Your task to perform on an android device: Open accessibility settings Image 0: 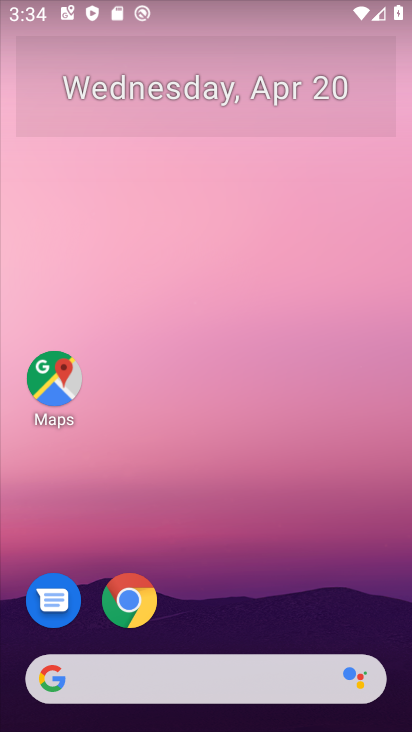
Step 0: drag from (238, 620) to (231, 152)
Your task to perform on an android device: Open accessibility settings Image 1: 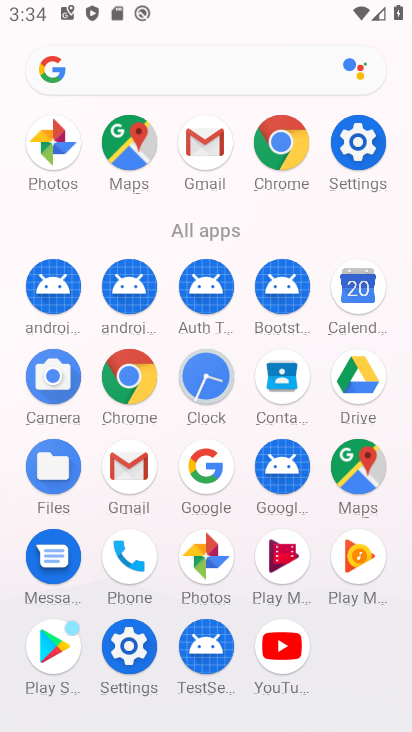
Step 1: click (361, 143)
Your task to perform on an android device: Open accessibility settings Image 2: 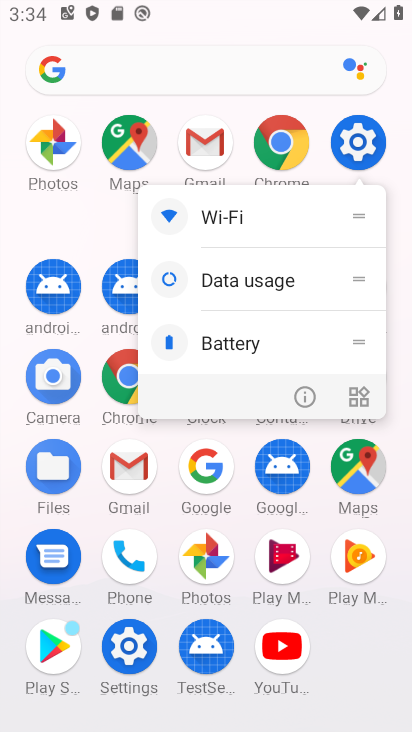
Step 2: click (355, 143)
Your task to perform on an android device: Open accessibility settings Image 3: 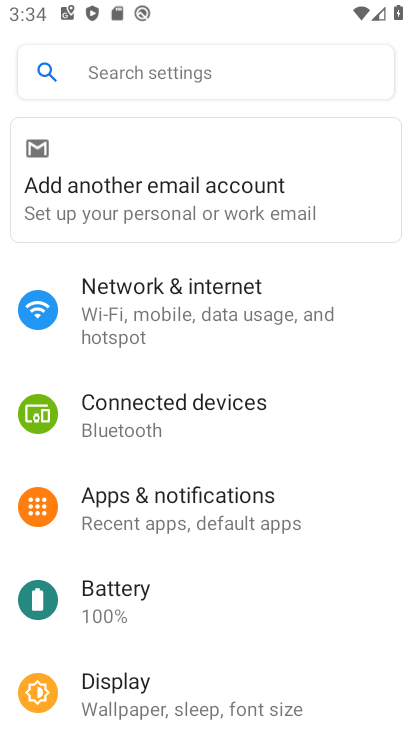
Step 3: drag from (236, 547) to (249, 81)
Your task to perform on an android device: Open accessibility settings Image 4: 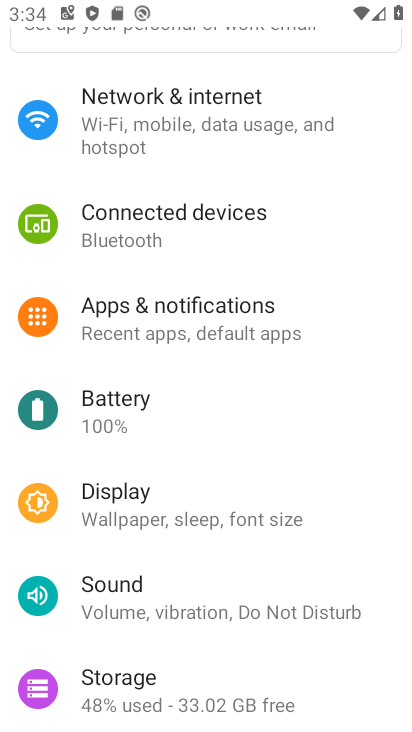
Step 4: drag from (224, 629) to (293, 125)
Your task to perform on an android device: Open accessibility settings Image 5: 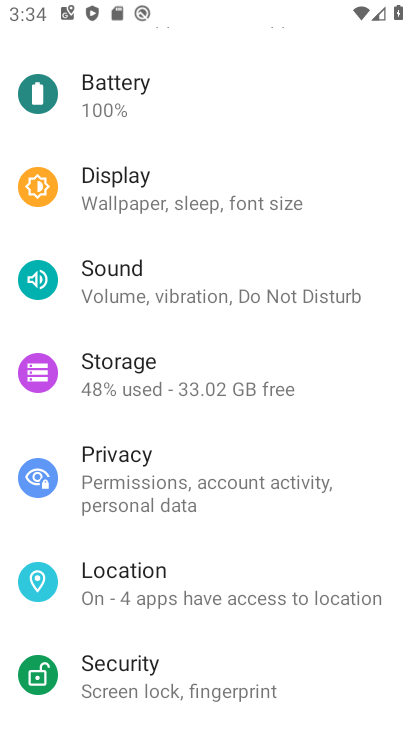
Step 5: drag from (261, 441) to (304, 124)
Your task to perform on an android device: Open accessibility settings Image 6: 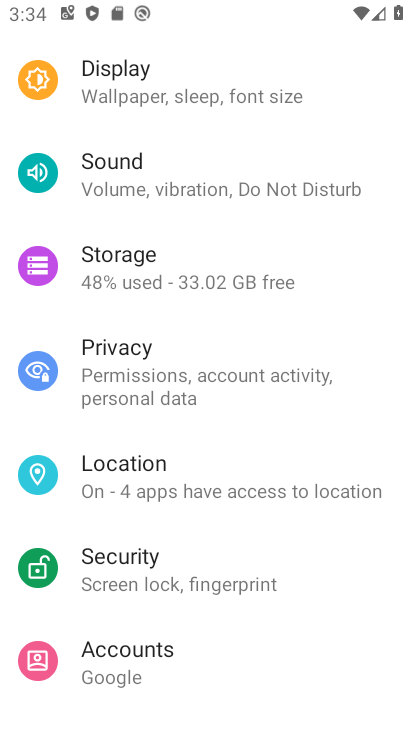
Step 6: drag from (167, 593) to (247, 150)
Your task to perform on an android device: Open accessibility settings Image 7: 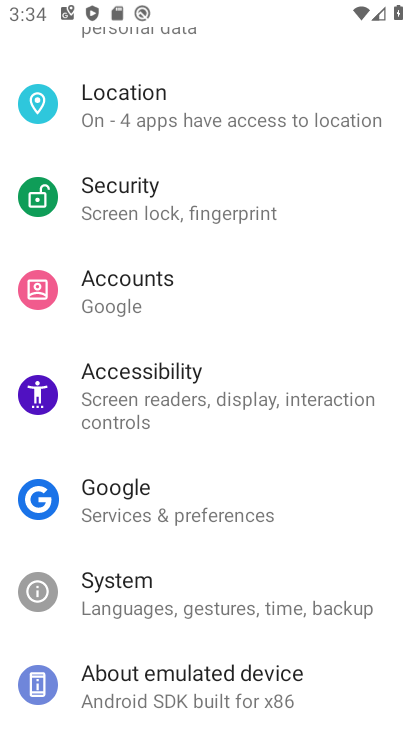
Step 7: click (183, 390)
Your task to perform on an android device: Open accessibility settings Image 8: 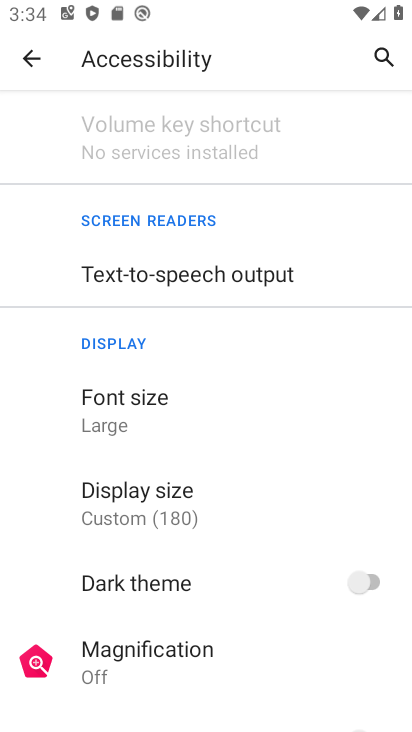
Step 8: task complete